Your task to perform on an android device: Go to wifi settings Image 0: 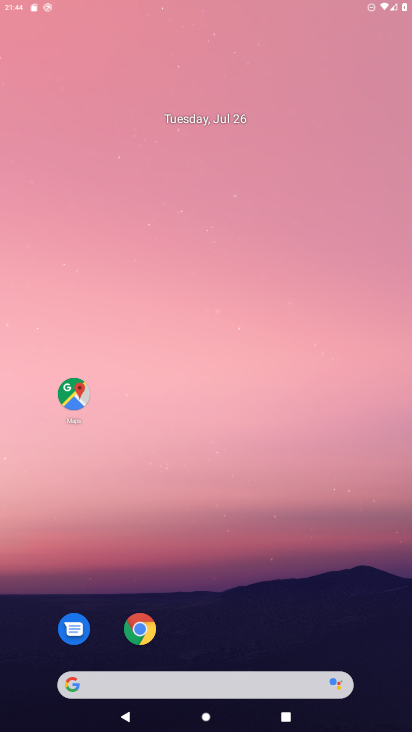
Step 0: click (209, 22)
Your task to perform on an android device: Go to wifi settings Image 1: 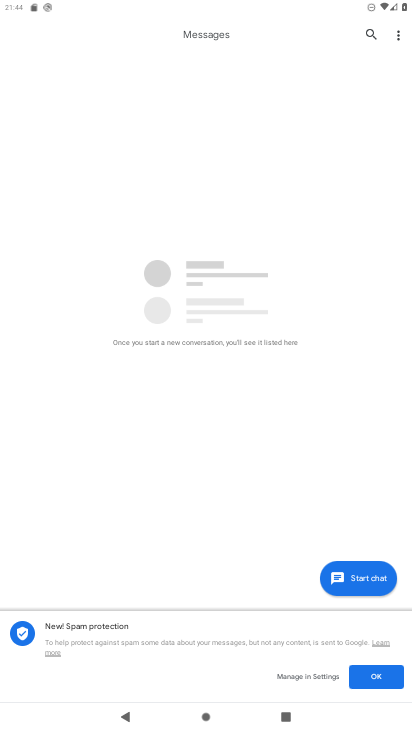
Step 1: press home button
Your task to perform on an android device: Go to wifi settings Image 2: 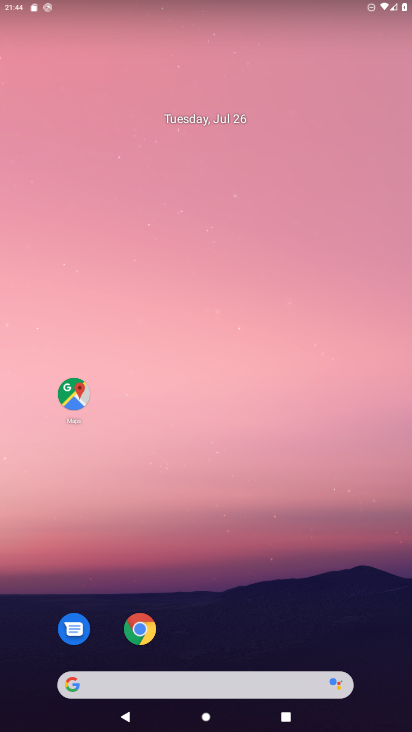
Step 2: drag from (69, 8) to (96, 431)
Your task to perform on an android device: Go to wifi settings Image 3: 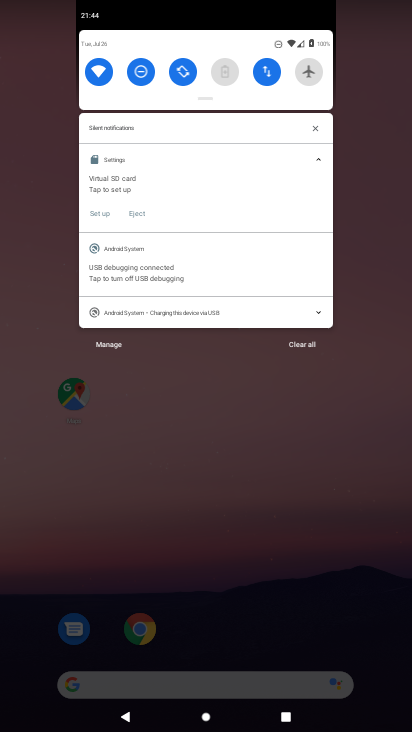
Step 3: click (91, 55)
Your task to perform on an android device: Go to wifi settings Image 4: 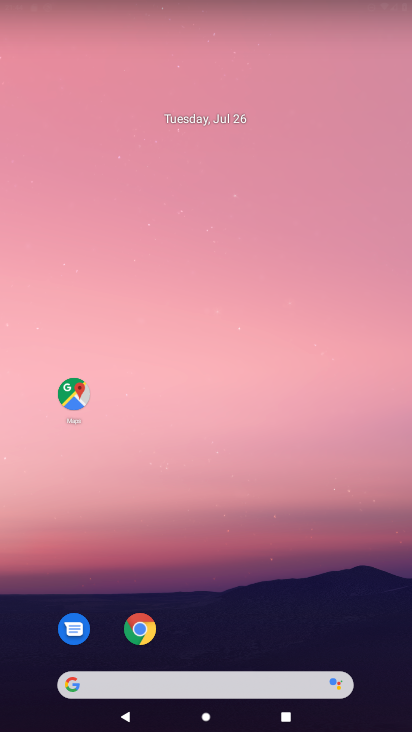
Step 4: click (93, 59)
Your task to perform on an android device: Go to wifi settings Image 5: 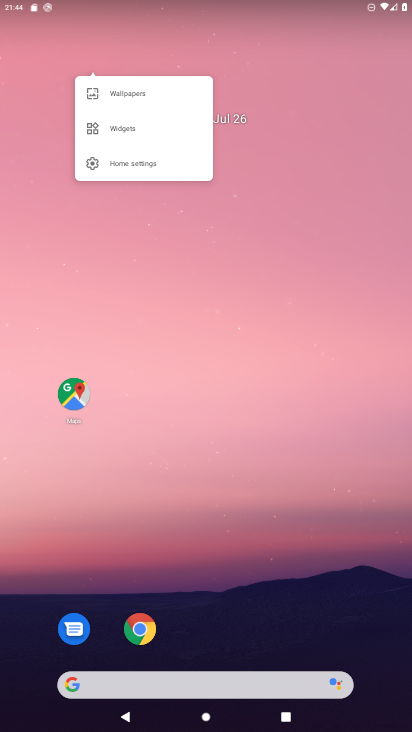
Step 5: click (264, 383)
Your task to perform on an android device: Go to wifi settings Image 6: 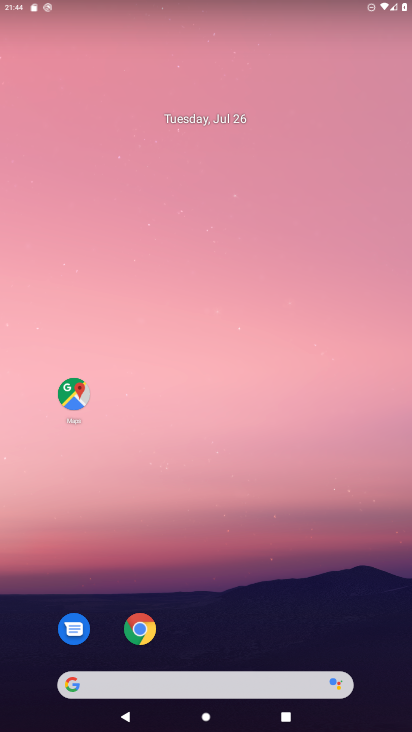
Step 6: drag from (171, 9) to (171, 532)
Your task to perform on an android device: Go to wifi settings Image 7: 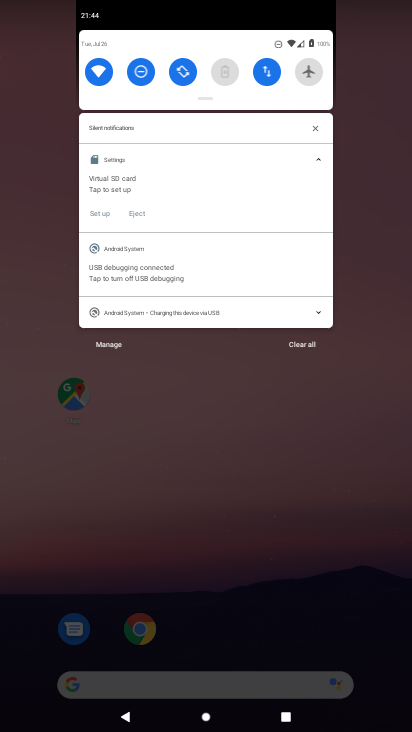
Step 7: click (103, 69)
Your task to perform on an android device: Go to wifi settings Image 8: 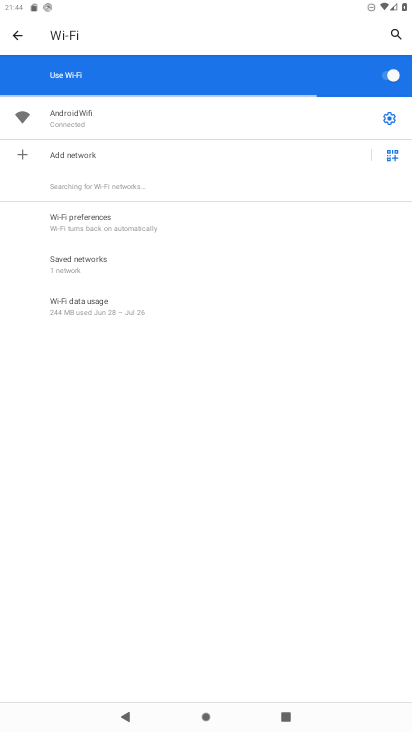
Step 8: task complete